Your task to perform on an android device: Turn on the flashlight Image 0: 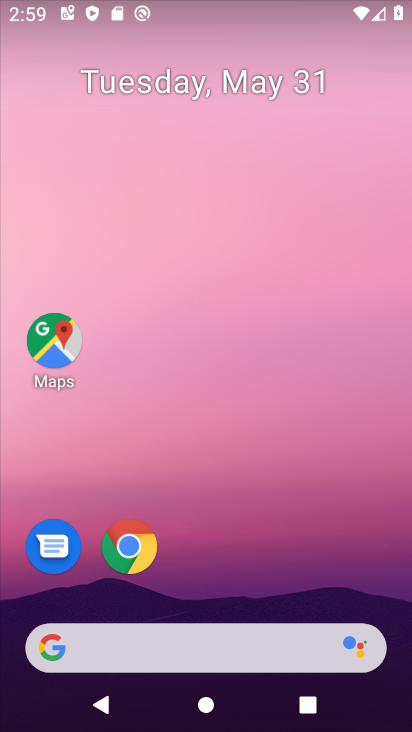
Step 0: drag from (240, 559) to (210, 77)
Your task to perform on an android device: Turn on the flashlight Image 1: 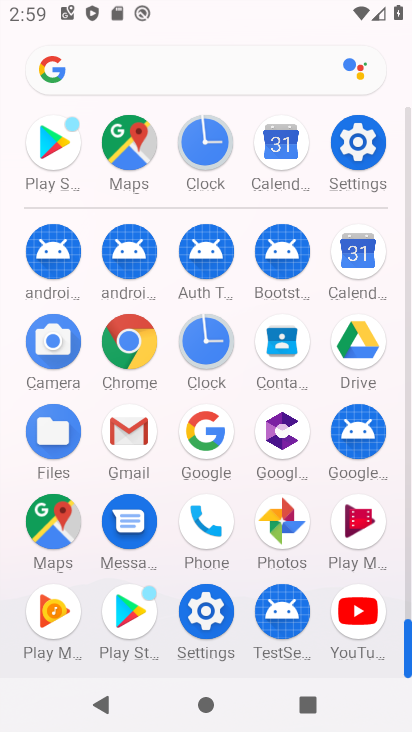
Step 1: click (343, 157)
Your task to perform on an android device: Turn on the flashlight Image 2: 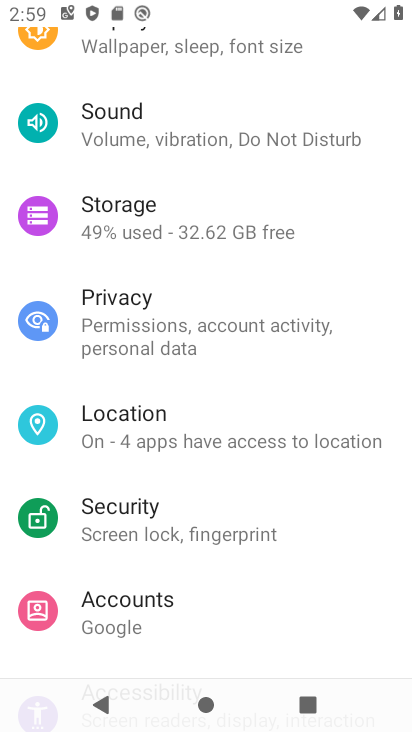
Step 2: drag from (258, 180) to (235, 634)
Your task to perform on an android device: Turn on the flashlight Image 3: 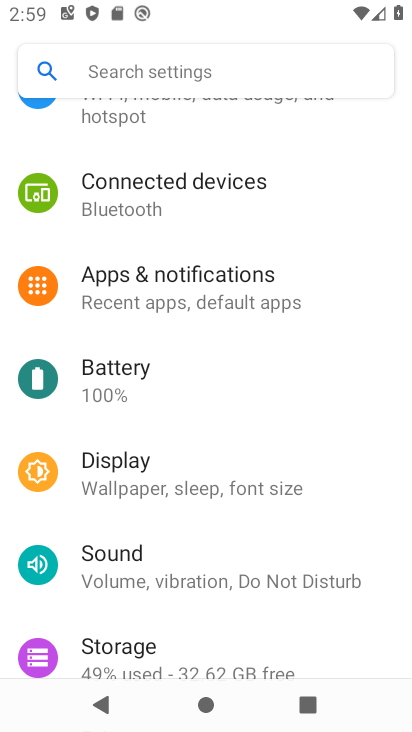
Step 3: drag from (234, 218) to (222, 606)
Your task to perform on an android device: Turn on the flashlight Image 4: 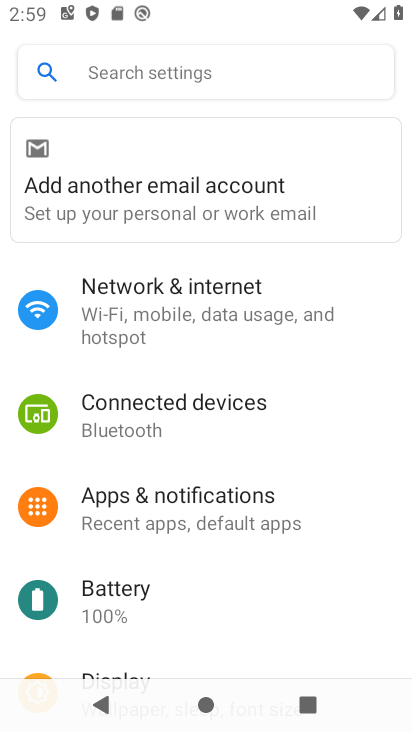
Step 4: click (272, 66)
Your task to perform on an android device: Turn on the flashlight Image 5: 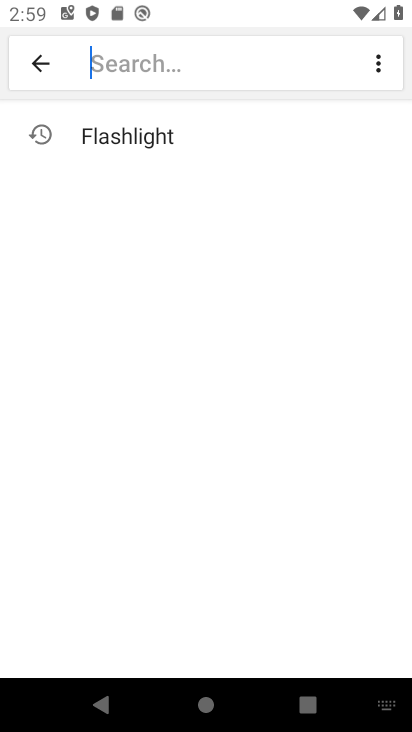
Step 5: click (115, 139)
Your task to perform on an android device: Turn on the flashlight Image 6: 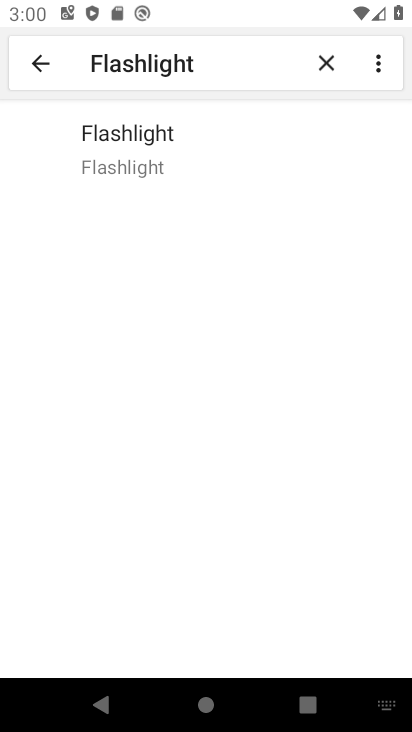
Step 6: click (116, 139)
Your task to perform on an android device: Turn on the flashlight Image 7: 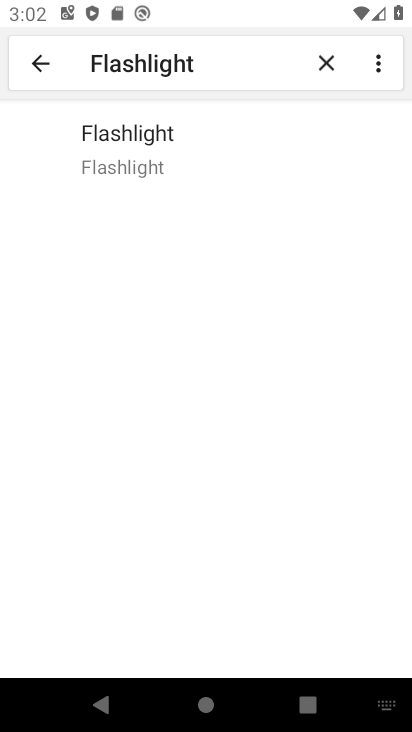
Step 7: task complete